Your task to perform on an android device: Open Chrome and go to settings Image 0: 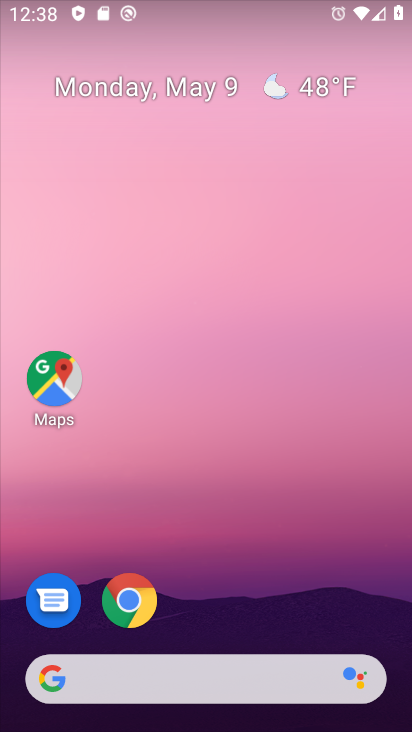
Step 0: click (133, 600)
Your task to perform on an android device: Open Chrome and go to settings Image 1: 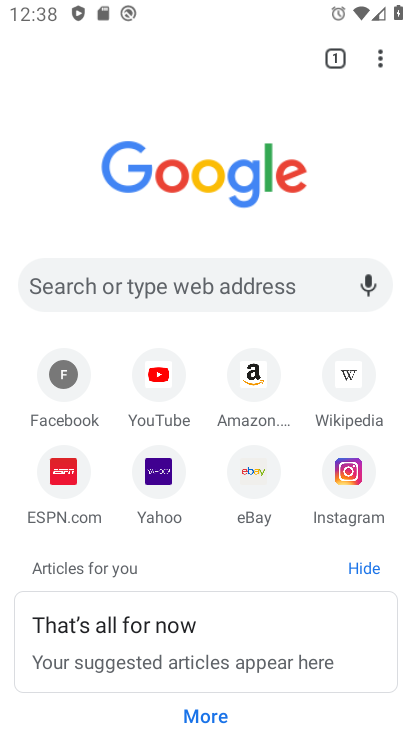
Step 1: press home button
Your task to perform on an android device: Open Chrome and go to settings Image 2: 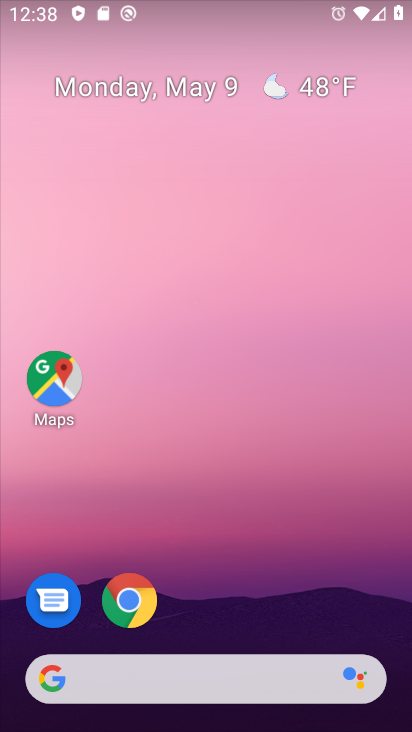
Step 2: click (139, 586)
Your task to perform on an android device: Open Chrome and go to settings Image 3: 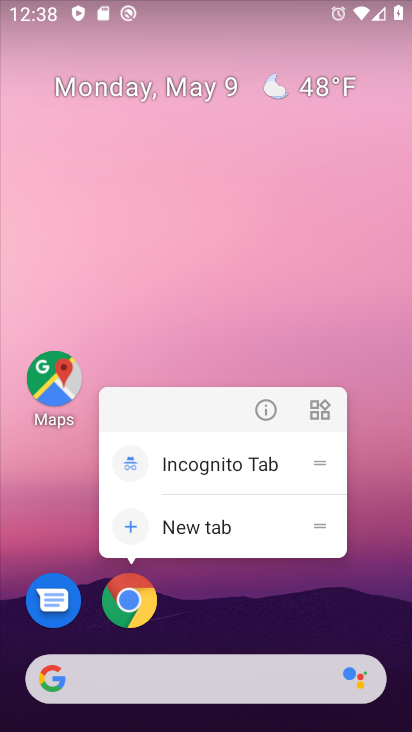
Step 3: click (139, 586)
Your task to perform on an android device: Open Chrome and go to settings Image 4: 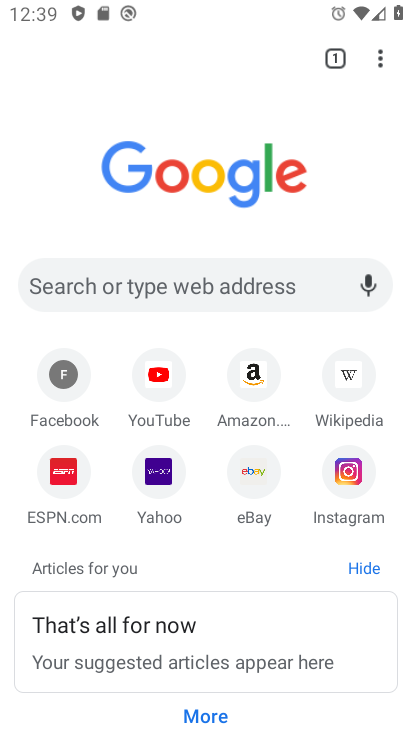
Step 4: click (378, 46)
Your task to perform on an android device: Open Chrome and go to settings Image 5: 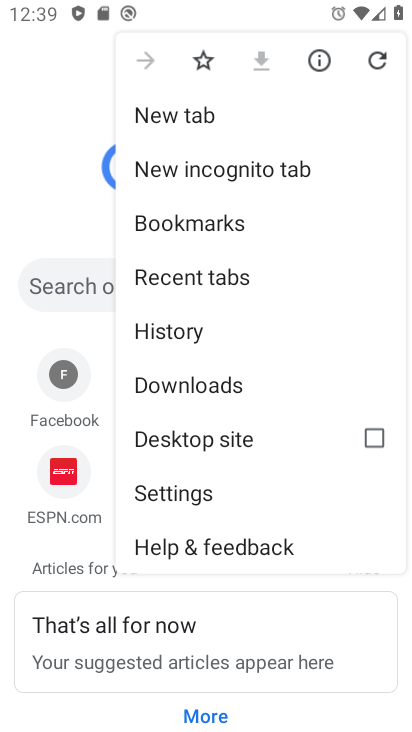
Step 5: click (284, 493)
Your task to perform on an android device: Open Chrome and go to settings Image 6: 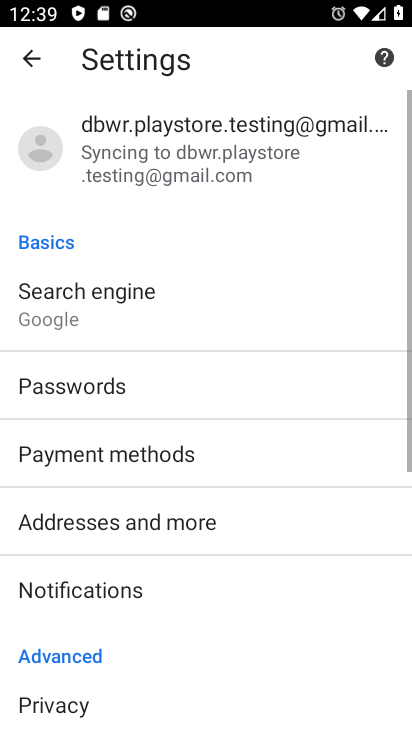
Step 6: task complete